Your task to perform on an android device: Open Chrome and go to settings Image 0: 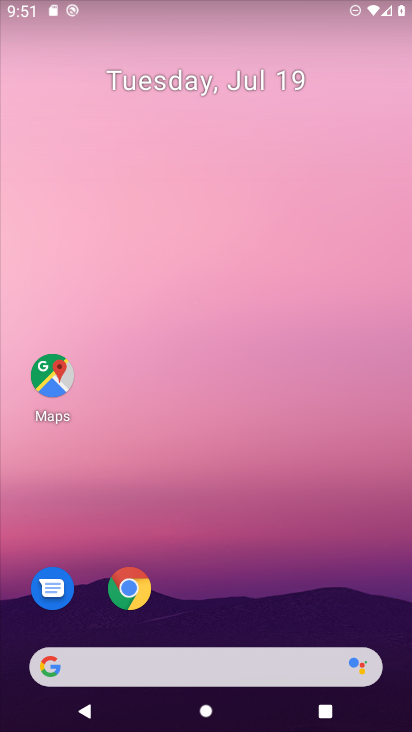
Step 0: drag from (255, 659) to (174, 219)
Your task to perform on an android device: Open Chrome and go to settings Image 1: 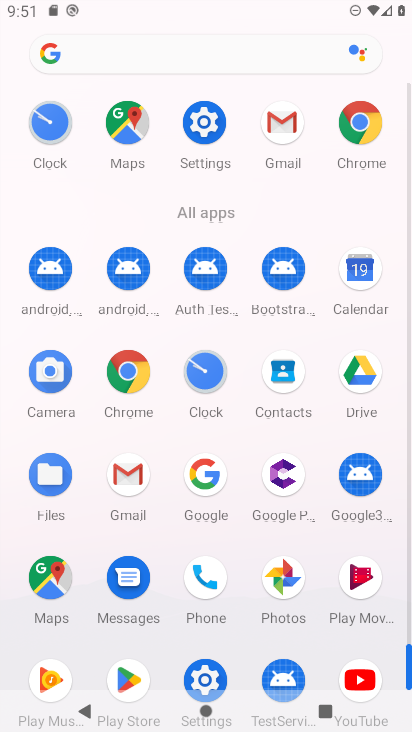
Step 1: click (369, 121)
Your task to perform on an android device: Open Chrome and go to settings Image 2: 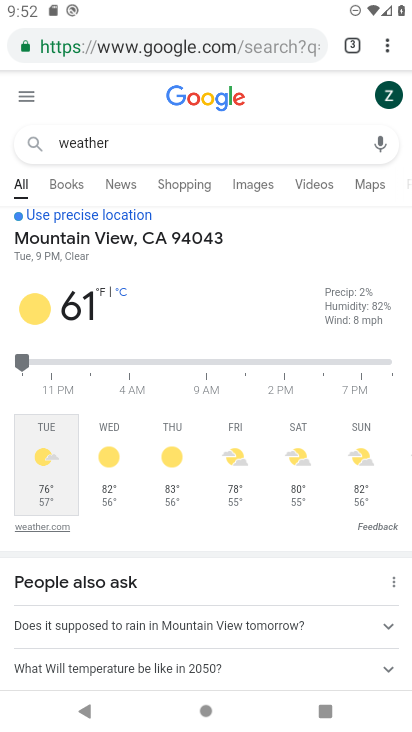
Step 2: drag from (388, 45) to (207, 514)
Your task to perform on an android device: Open Chrome and go to settings Image 3: 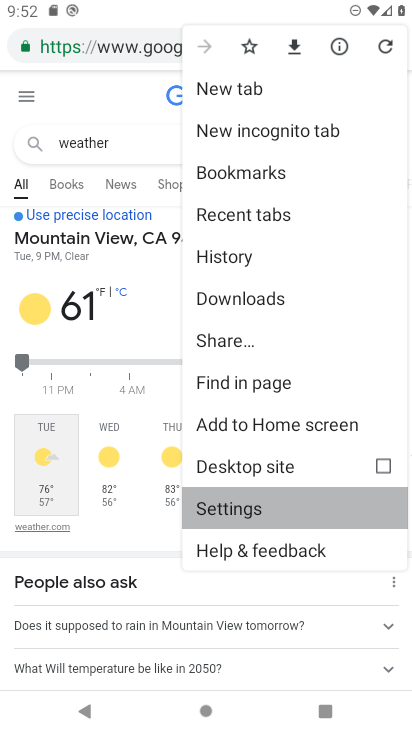
Step 3: click (224, 523)
Your task to perform on an android device: Open Chrome and go to settings Image 4: 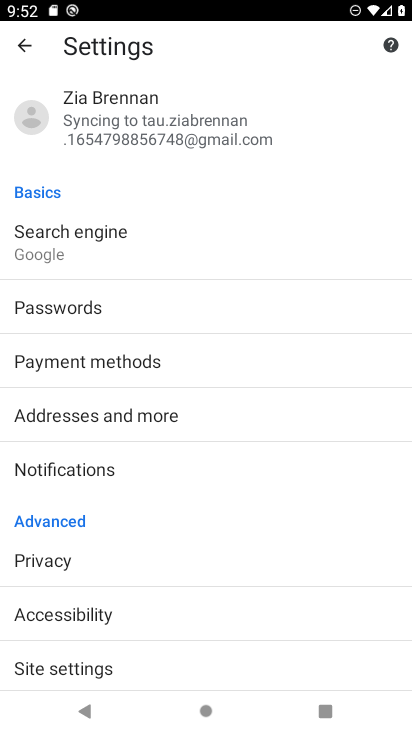
Step 4: task complete